Your task to perform on an android device: turn pop-ups on in chrome Image 0: 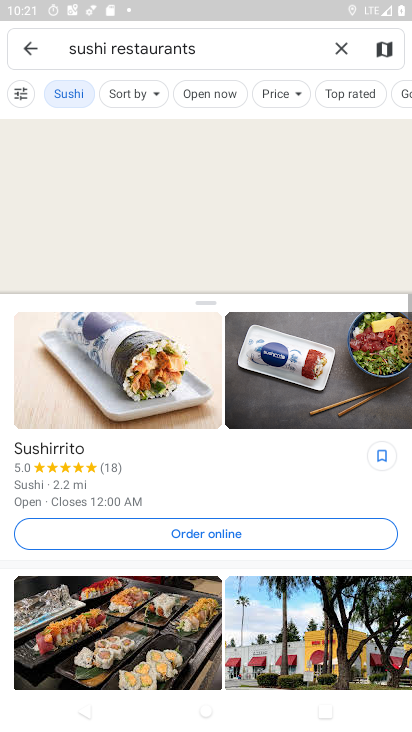
Step 0: press home button
Your task to perform on an android device: turn pop-ups on in chrome Image 1: 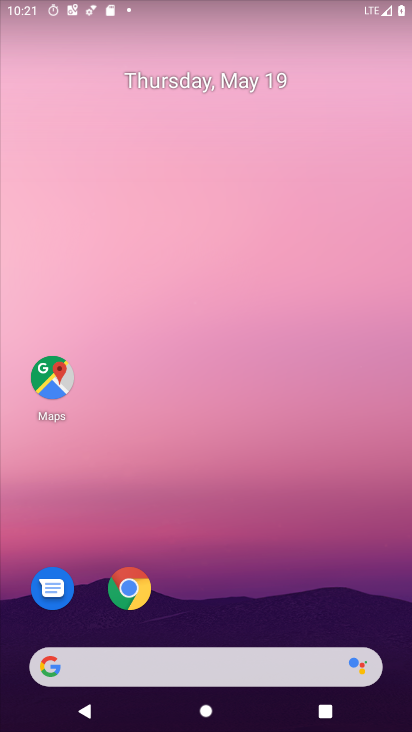
Step 1: click (135, 590)
Your task to perform on an android device: turn pop-ups on in chrome Image 2: 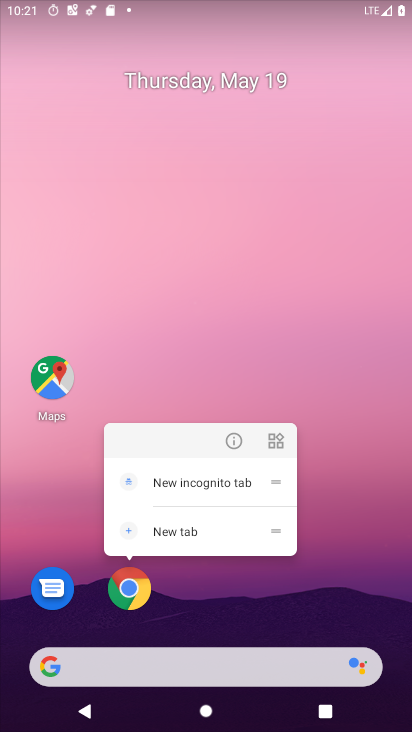
Step 2: click (128, 593)
Your task to perform on an android device: turn pop-ups on in chrome Image 3: 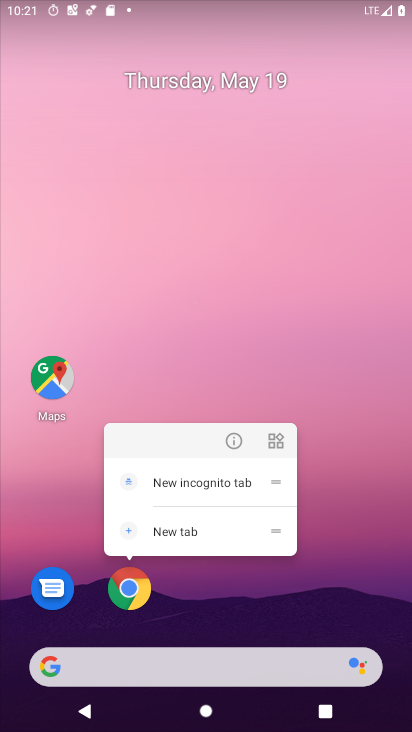
Step 3: click (128, 594)
Your task to perform on an android device: turn pop-ups on in chrome Image 4: 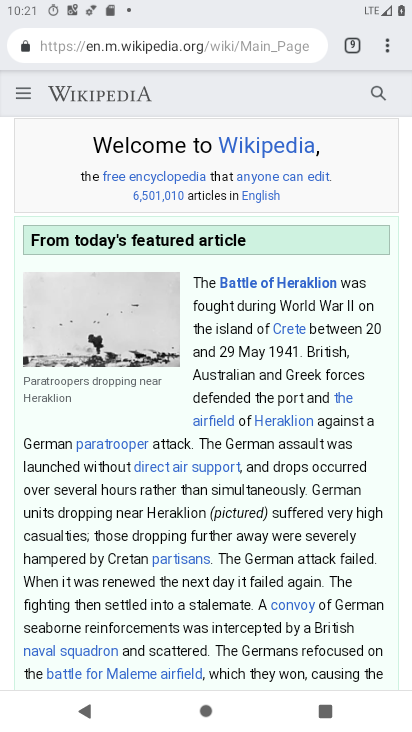
Step 4: drag from (386, 48) to (242, 558)
Your task to perform on an android device: turn pop-ups on in chrome Image 5: 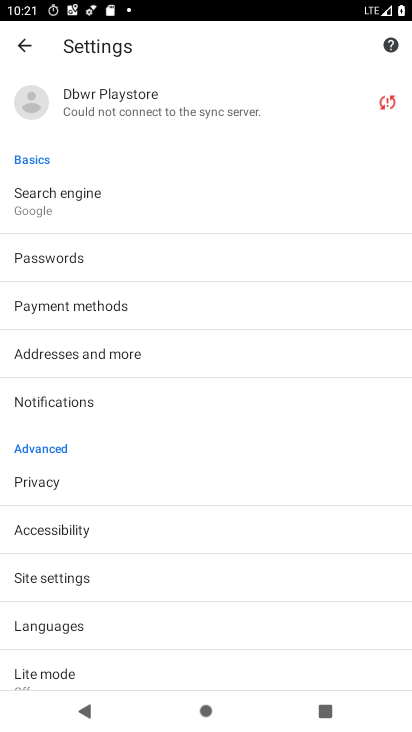
Step 5: click (115, 584)
Your task to perform on an android device: turn pop-ups on in chrome Image 6: 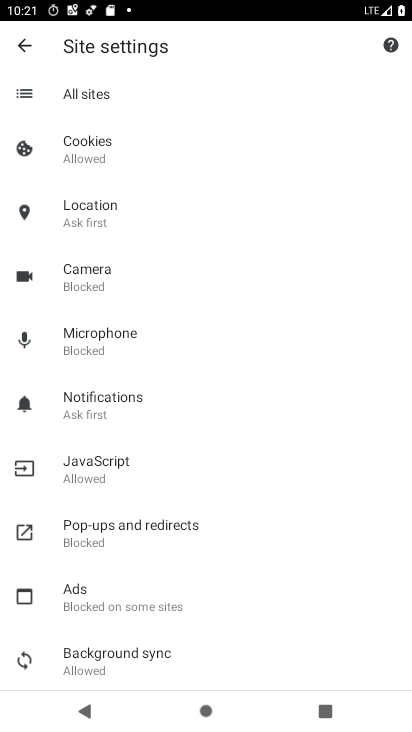
Step 6: click (138, 526)
Your task to perform on an android device: turn pop-ups on in chrome Image 7: 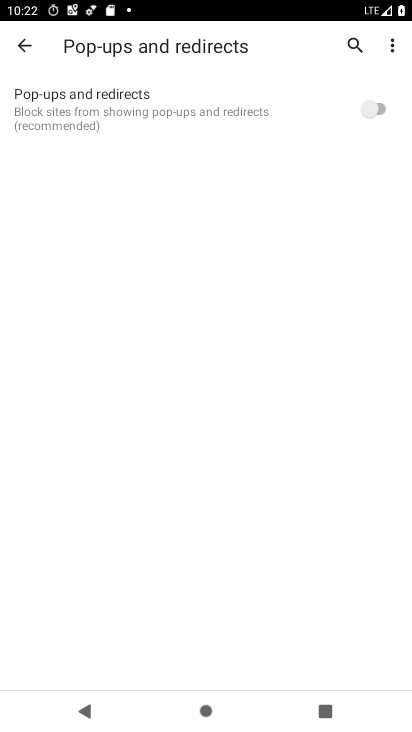
Step 7: click (380, 107)
Your task to perform on an android device: turn pop-ups on in chrome Image 8: 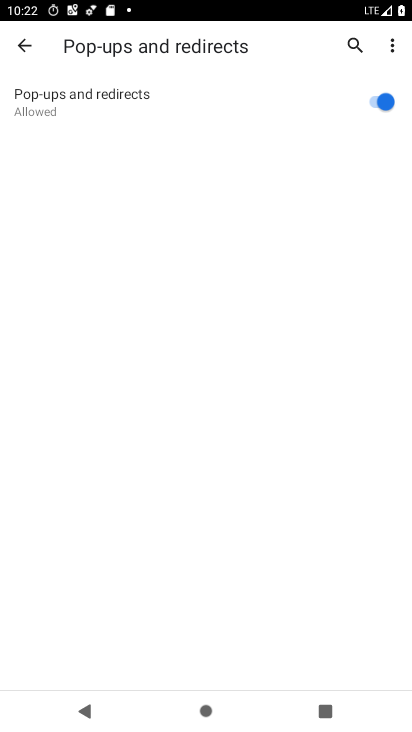
Step 8: task complete